Your task to perform on an android device: Go to eBay Image 0: 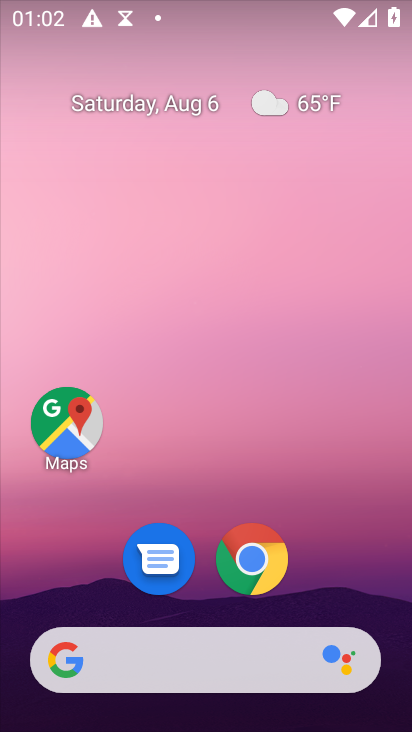
Step 0: click (282, 575)
Your task to perform on an android device: Go to eBay Image 1: 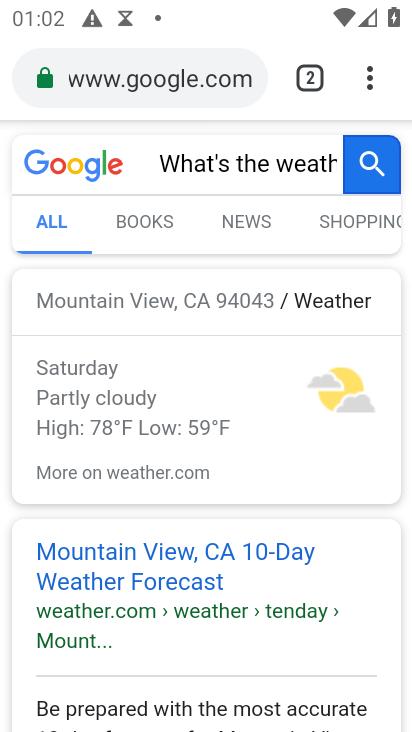
Step 1: click (316, 82)
Your task to perform on an android device: Go to eBay Image 2: 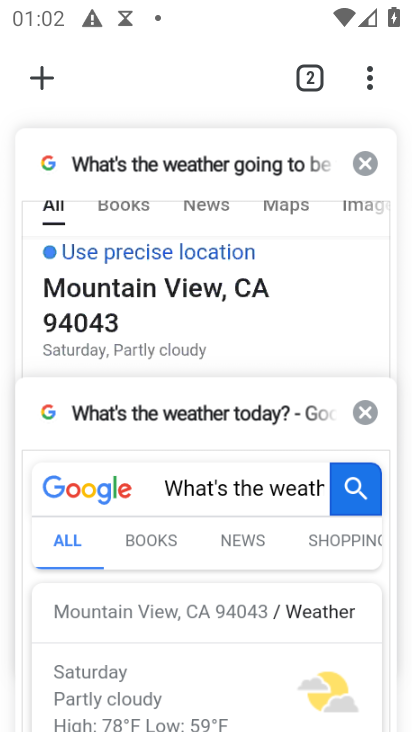
Step 2: click (41, 70)
Your task to perform on an android device: Go to eBay Image 3: 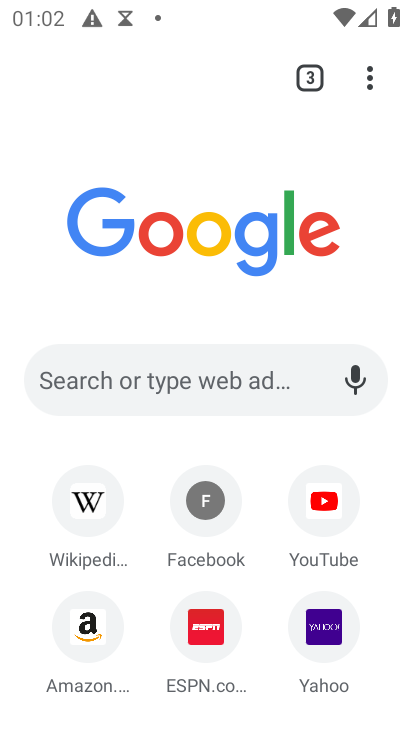
Step 3: click (207, 400)
Your task to perform on an android device: Go to eBay Image 4: 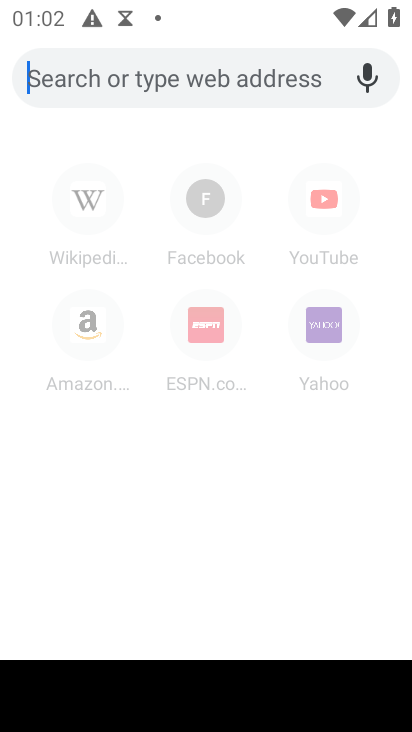
Step 4: type "eBay"
Your task to perform on an android device: Go to eBay Image 5: 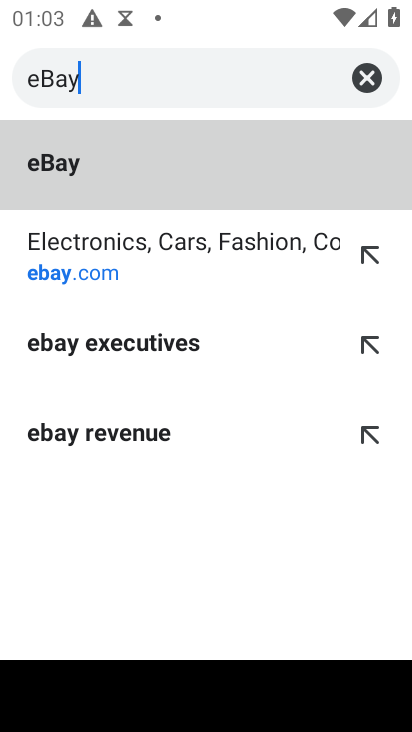
Step 5: click (84, 279)
Your task to perform on an android device: Go to eBay Image 6: 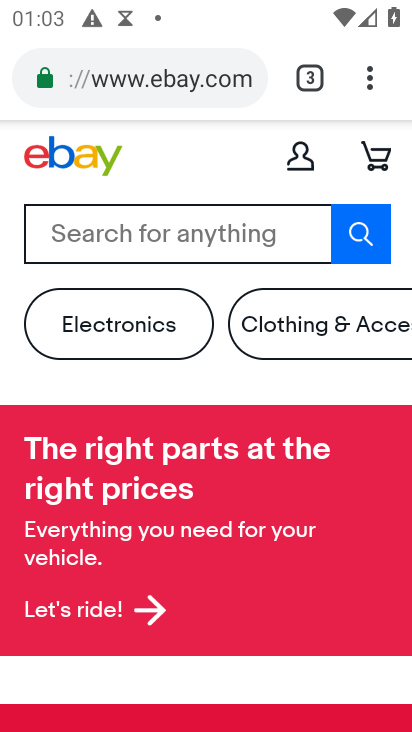
Step 6: task complete